Your task to perform on an android device: open app "PUBG MOBILE" Image 0: 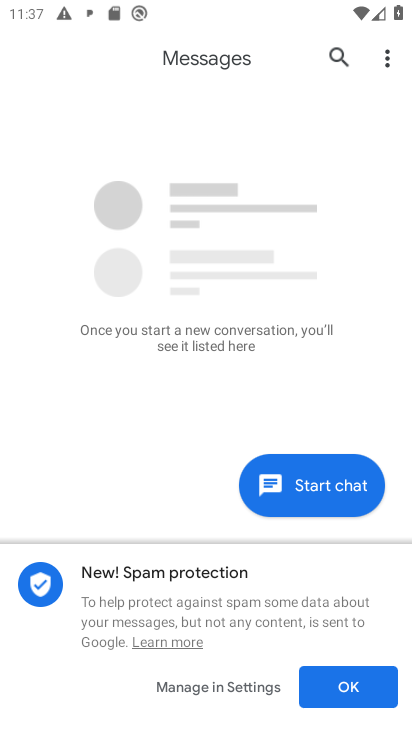
Step 0: task impossible